Your task to perform on an android device: What's on my calendar tomorrow? Image 0: 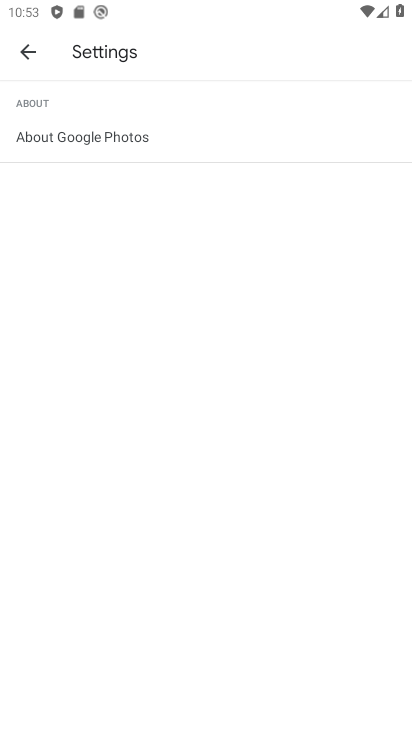
Step 0: press home button
Your task to perform on an android device: What's on my calendar tomorrow? Image 1: 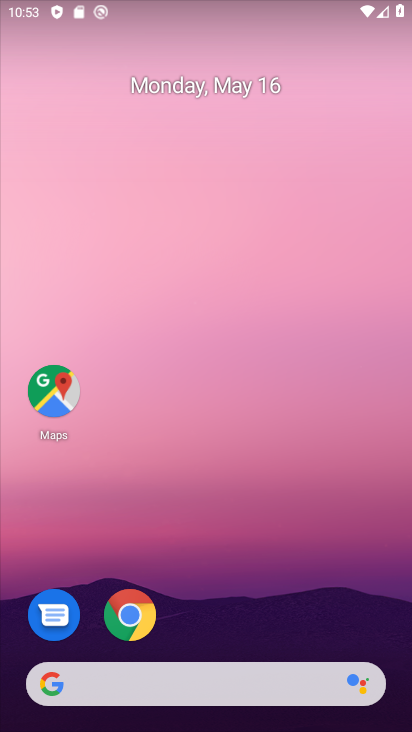
Step 1: drag from (222, 725) to (176, 234)
Your task to perform on an android device: What's on my calendar tomorrow? Image 2: 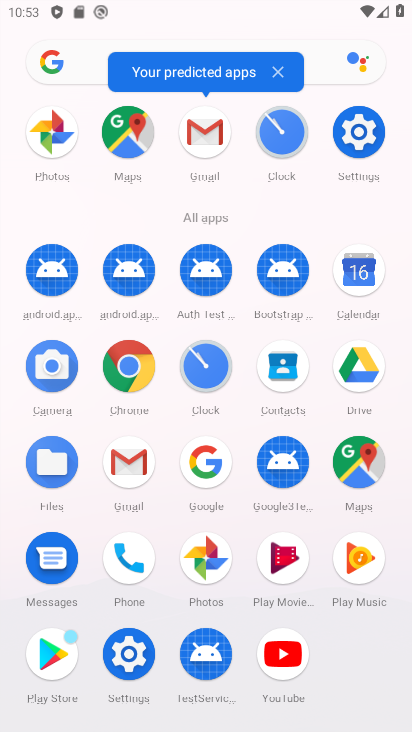
Step 2: click (360, 280)
Your task to perform on an android device: What's on my calendar tomorrow? Image 3: 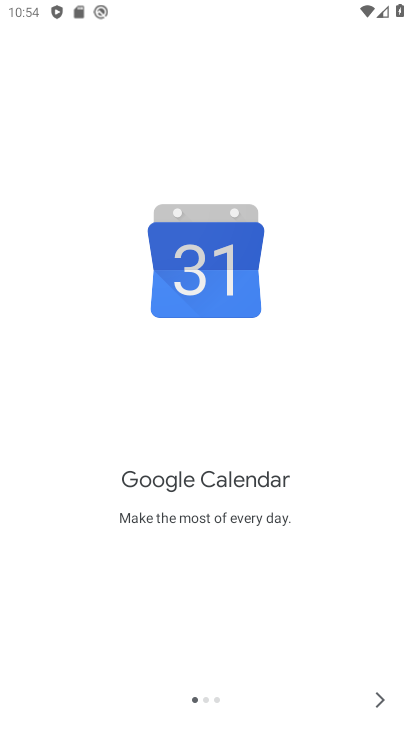
Step 3: click (380, 699)
Your task to perform on an android device: What's on my calendar tomorrow? Image 4: 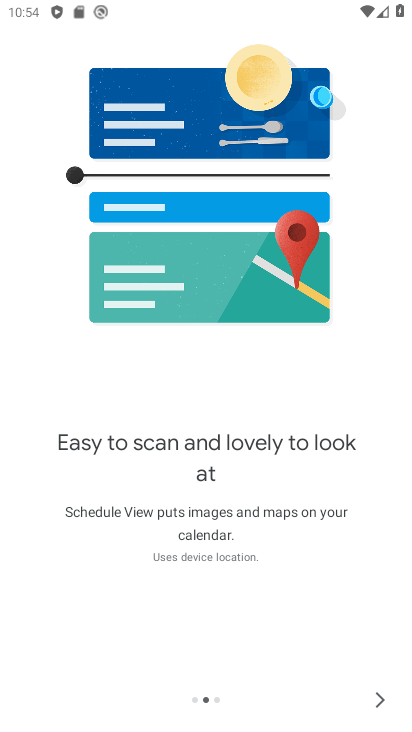
Step 4: click (380, 699)
Your task to perform on an android device: What's on my calendar tomorrow? Image 5: 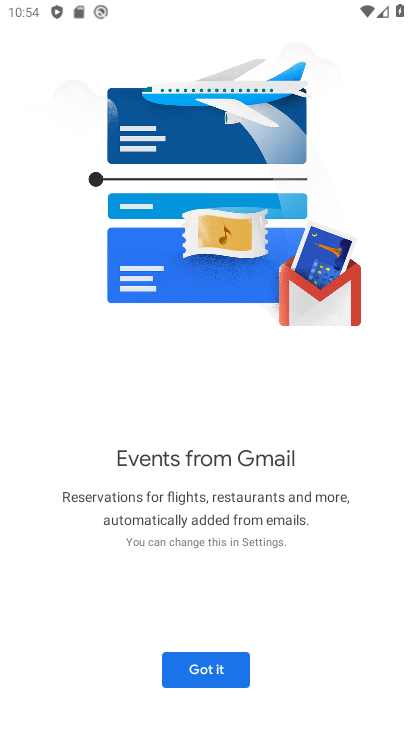
Step 5: click (214, 668)
Your task to perform on an android device: What's on my calendar tomorrow? Image 6: 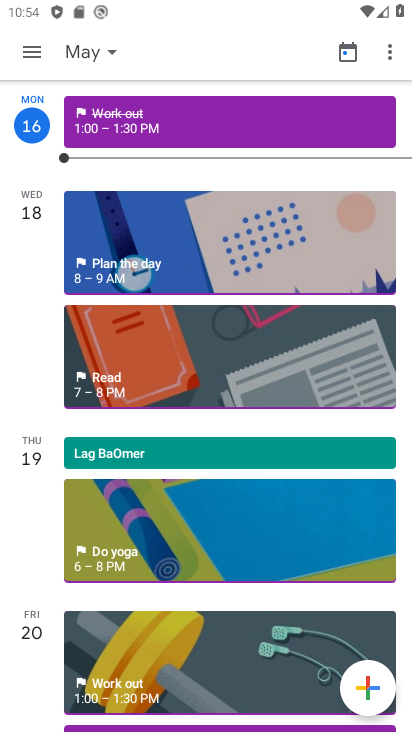
Step 6: click (84, 53)
Your task to perform on an android device: What's on my calendar tomorrow? Image 7: 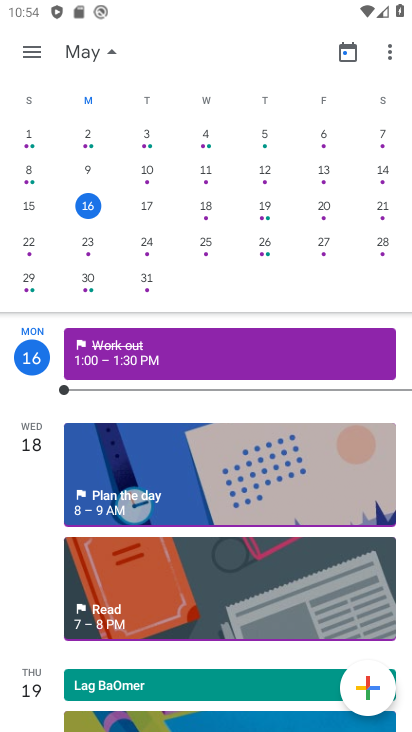
Step 7: click (147, 200)
Your task to perform on an android device: What's on my calendar tomorrow? Image 8: 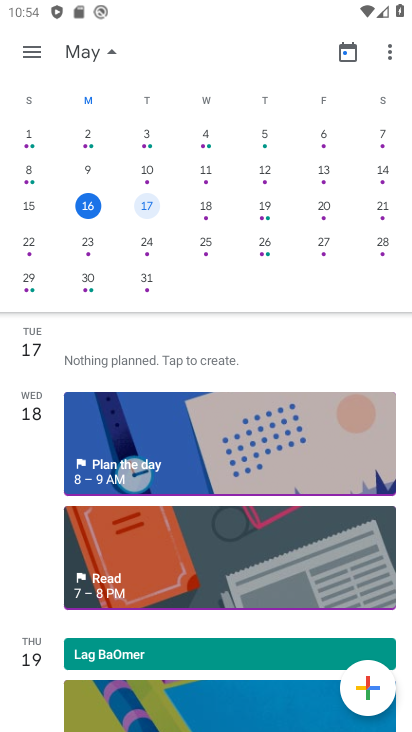
Step 8: task complete